Your task to perform on an android device: Open Amazon Image 0: 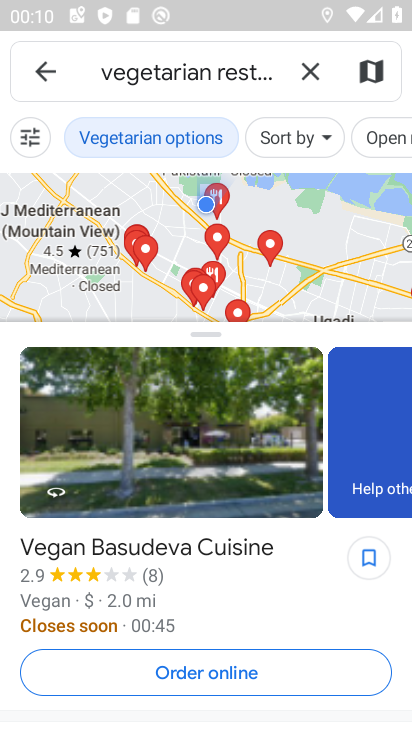
Step 0: press home button
Your task to perform on an android device: Open Amazon Image 1: 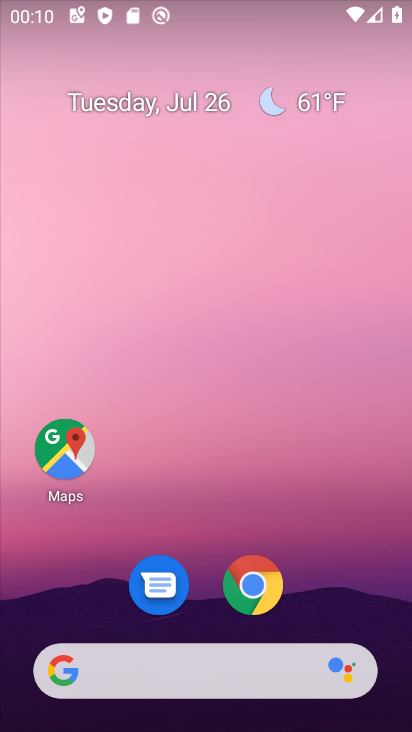
Step 1: drag from (272, 527) to (261, 49)
Your task to perform on an android device: Open Amazon Image 2: 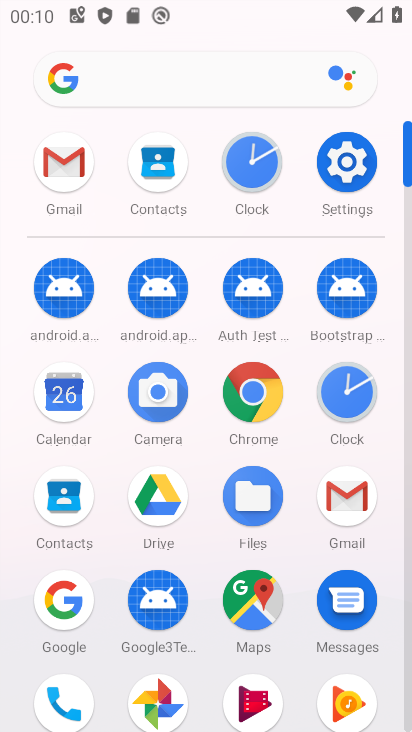
Step 2: click (252, 387)
Your task to perform on an android device: Open Amazon Image 3: 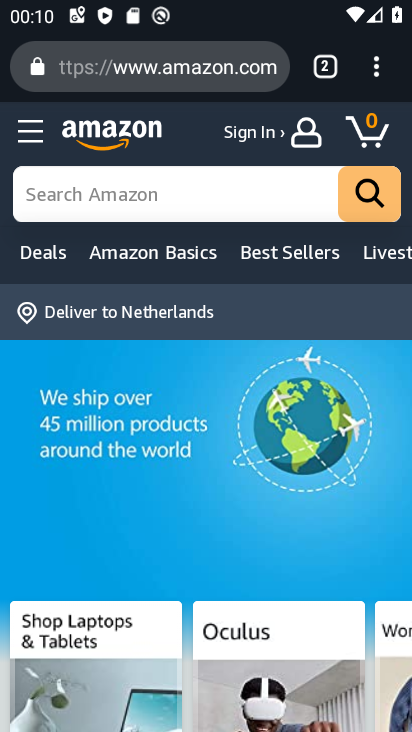
Step 3: task complete